Your task to perform on an android device: Do I have any events today? Image 0: 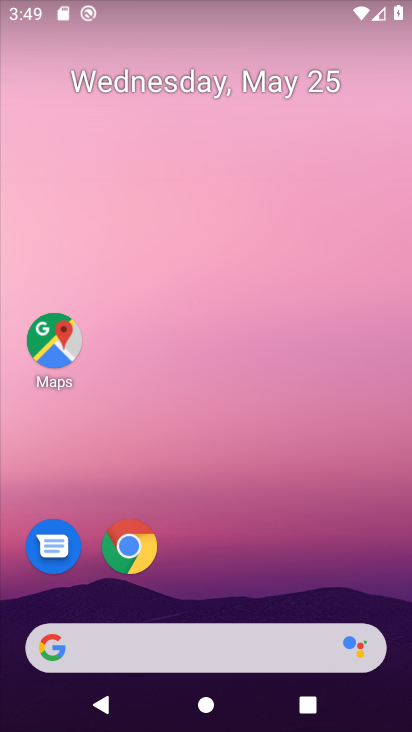
Step 0: drag from (253, 595) to (218, 147)
Your task to perform on an android device: Do I have any events today? Image 1: 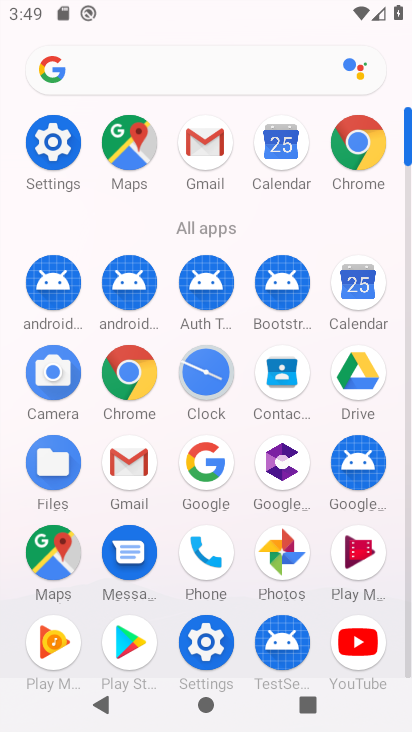
Step 1: click (349, 302)
Your task to perform on an android device: Do I have any events today? Image 2: 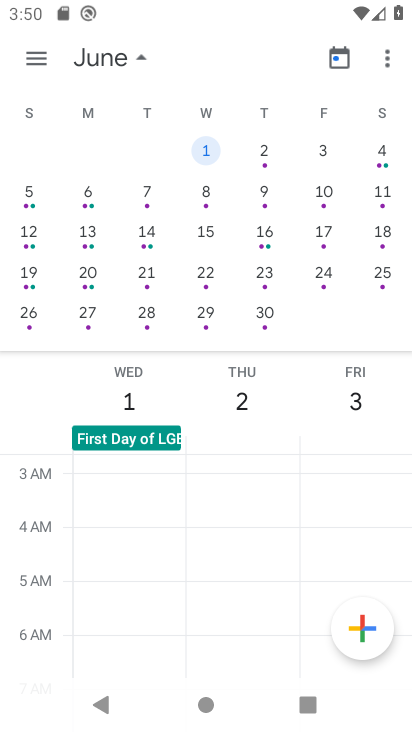
Step 2: drag from (395, 225) to (358, 225)
Your task to perform on an android device: Do I have any events today? Image 3: 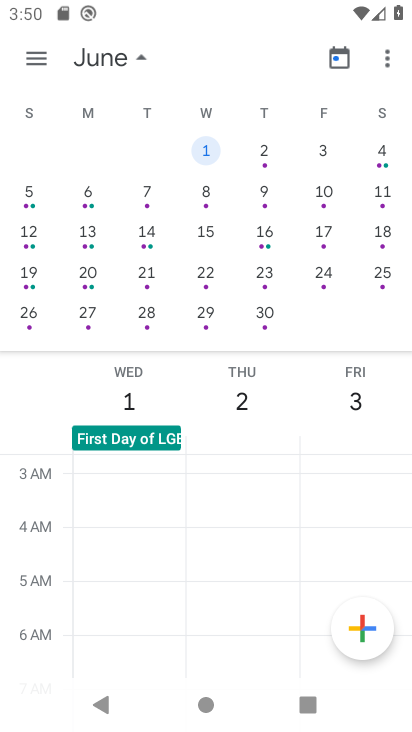
Step 3: click (48, 55)
Your task to perform on an android device: Do I have any events today? Image 4: 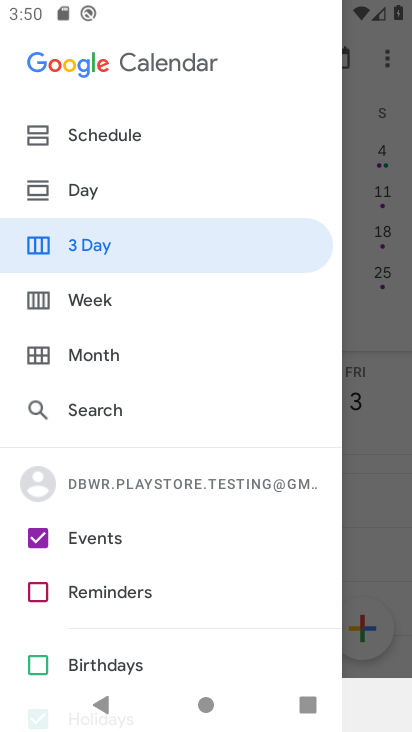
Step 4: click (94, 191)
Your task to perform on an android device: Do I have any events today? Image 5: 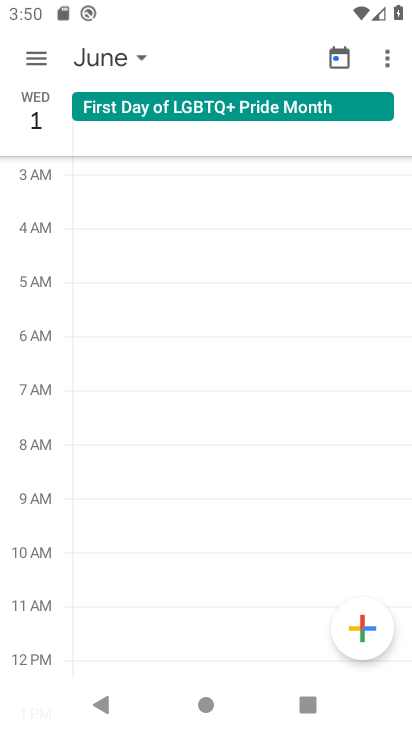
Step 5: click (100, 67)
Your task to perform on an android device: Do I have any events today? Image 6: 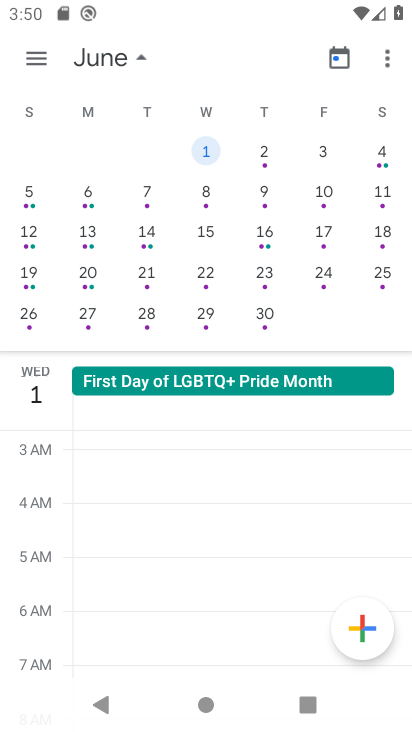
Step 6: drag from (61, 251) to (400, 350)
Your task to perform on an android device: Do I have any events today? Image 7: 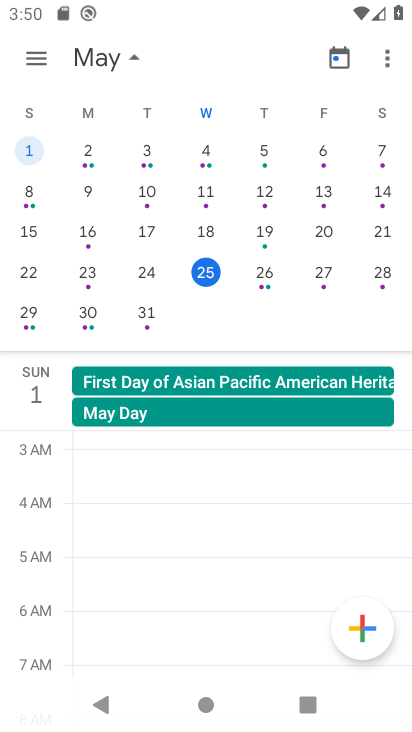
Step 7: click (200, 277)
Your task to perform on an android device: Do I have any events today? Image 8: 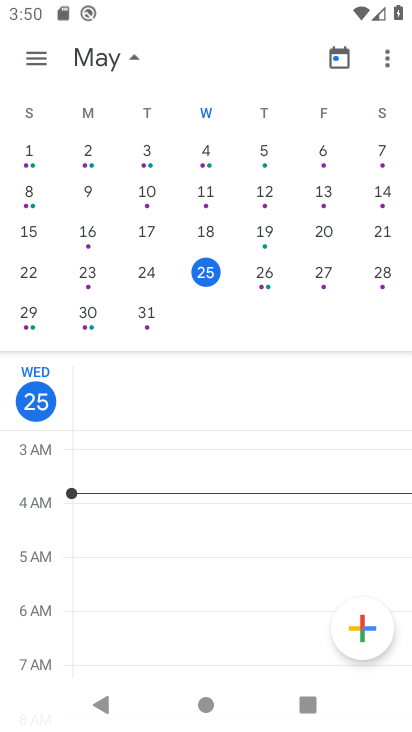
Step 8: task complete